Your task to perform on an android device: Open internet settings Image 0: 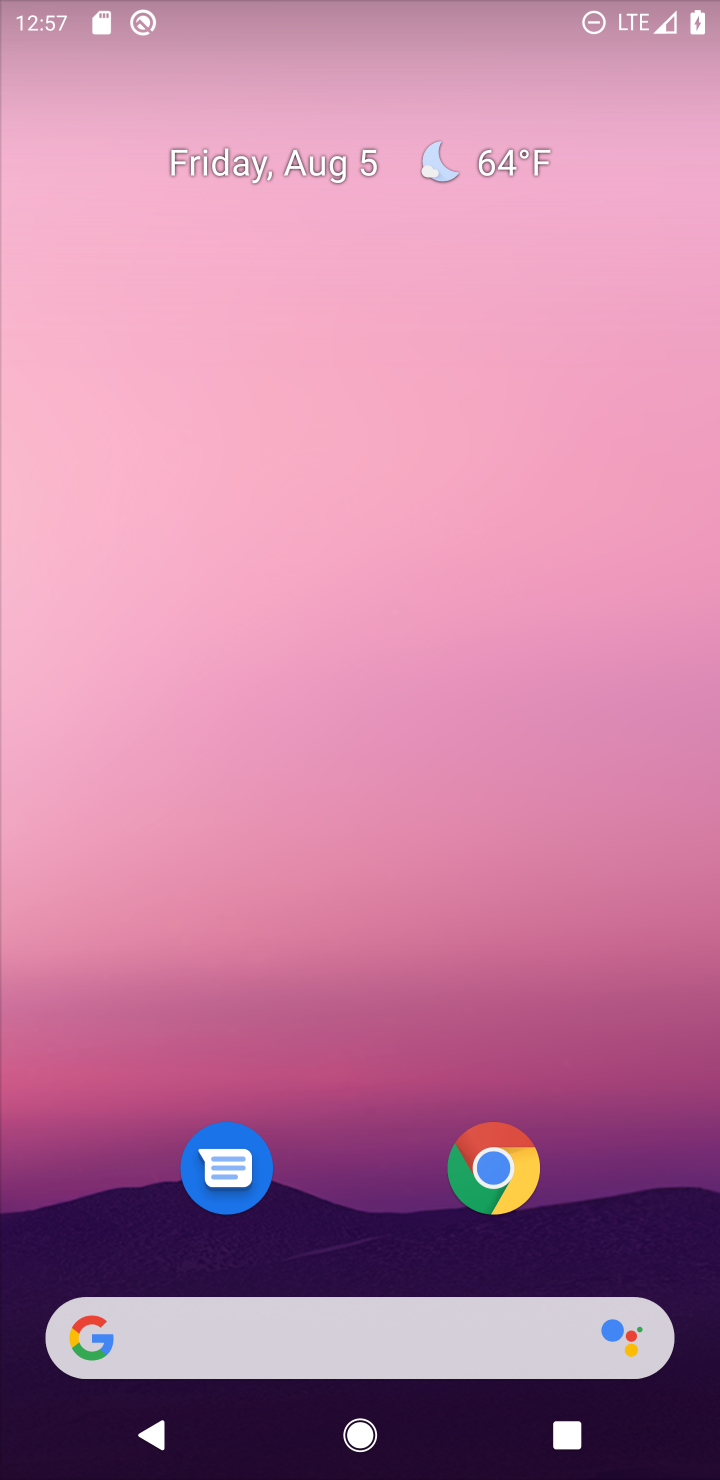
Step 0: drag from (648, 1224) to (375, 115)
Your task to perform on an android device: Open internet settings Image 1: 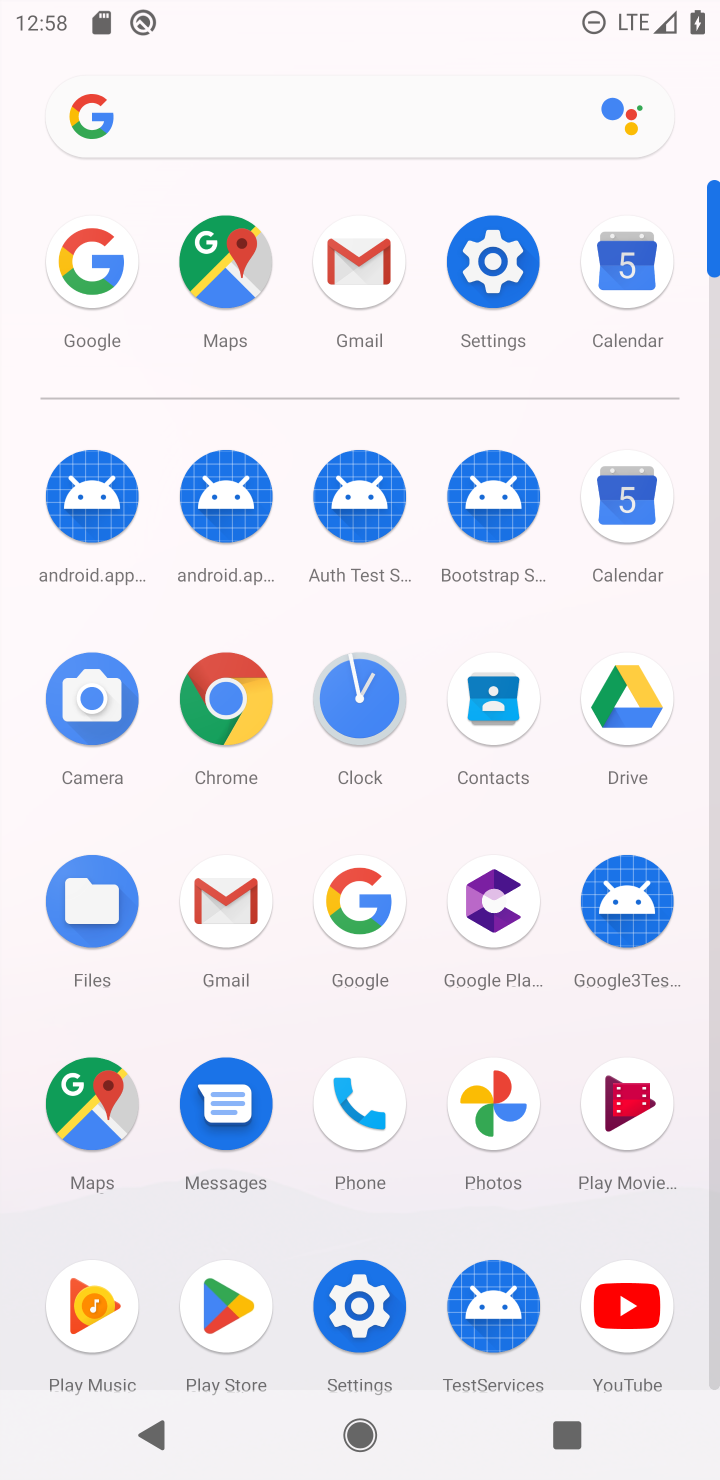
Step 1: click (386, 1307)
Your task to perform on an android device: Open internet settings Image 2: 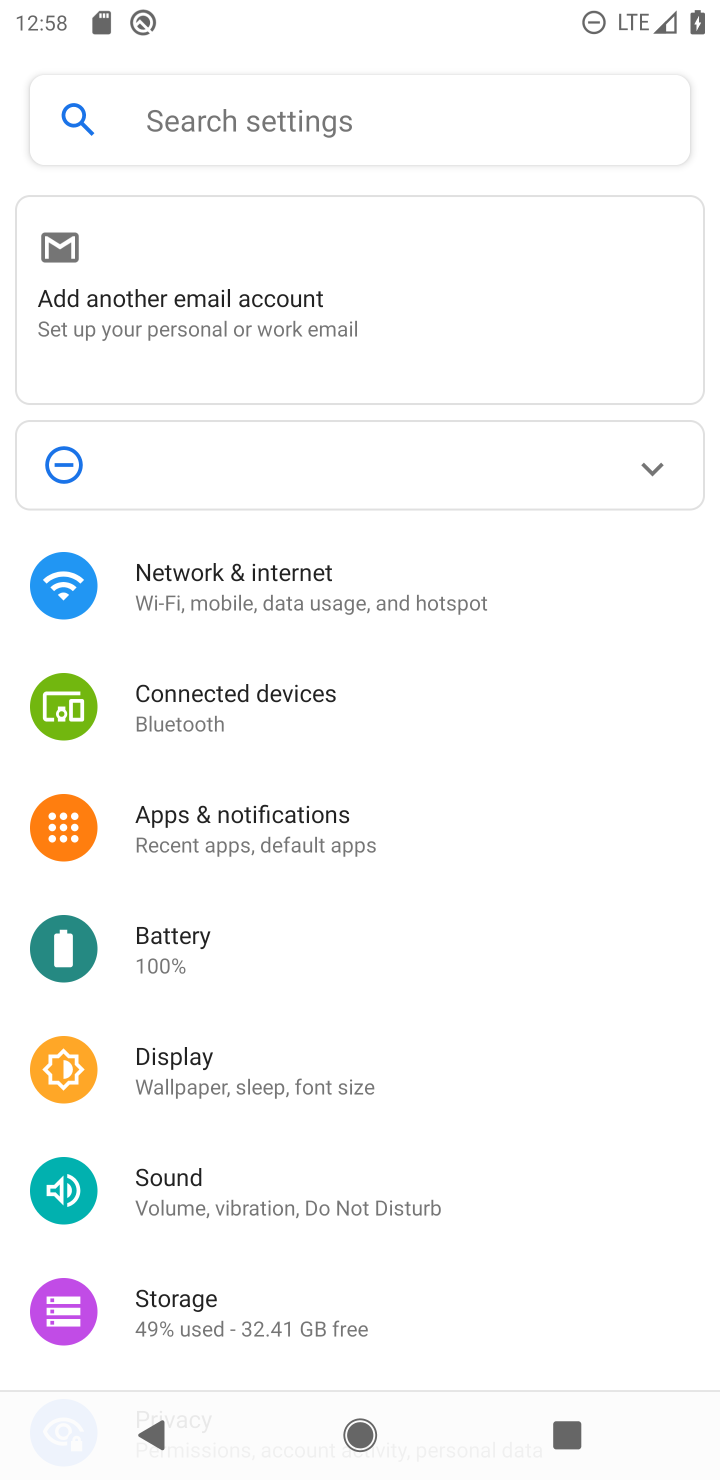
Step 2: click (281, 600)
Your task to perform on an android device: Open internet settings Image 3: 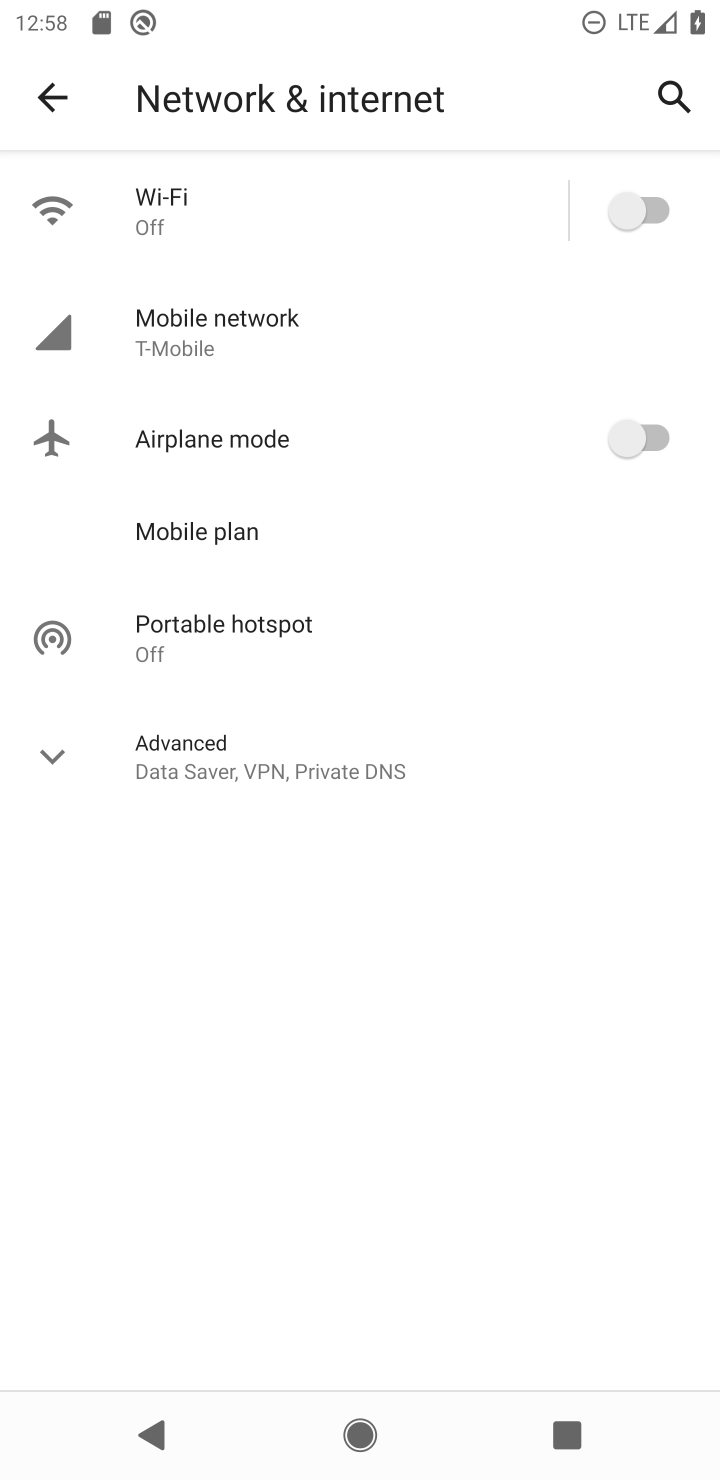
Step 3: task complete